Your task to perform on an android device: open a bookmark in the chrome app Image 0: 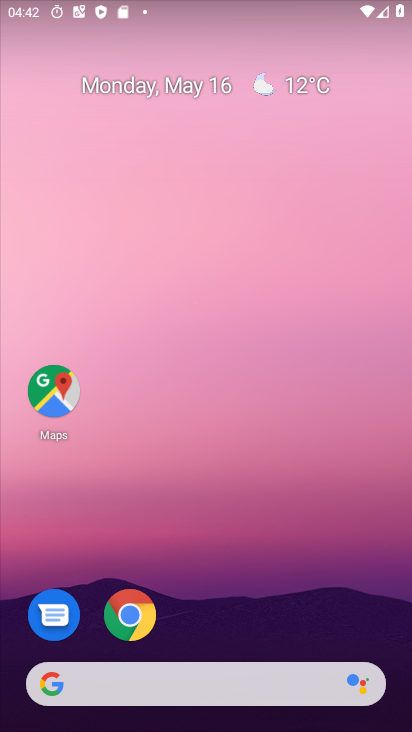
Step 0: drag from (294, 659) to (141, 54)
Your task to perform on an android device: open a bookmark in the chrome app Image 1: 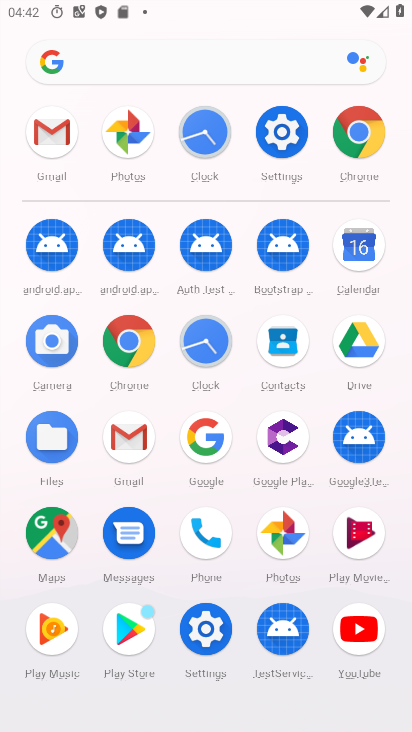
Step 1: click (358, 137)
Your task to perform on an android device: open a bookmark in the chrome app Image 2: 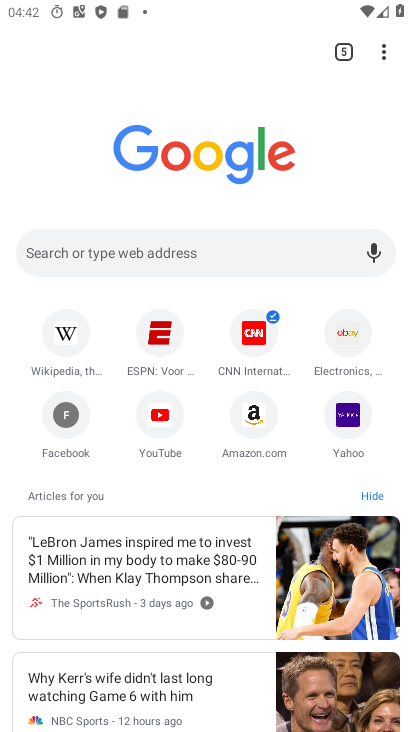
Step 2: click (87, 251)
Your task to perform on an android device: open a bookmark in the chrome app Image 3: 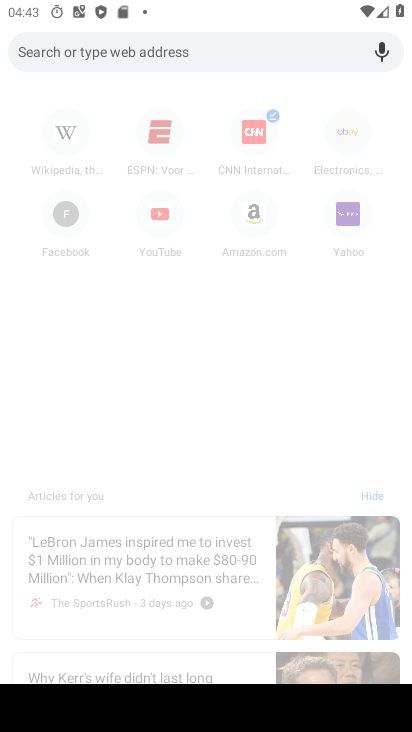
Step 3: type "www.snapdeal.com"
Your task to perform on an android device: open a bookmark in the chrome app Image 4: 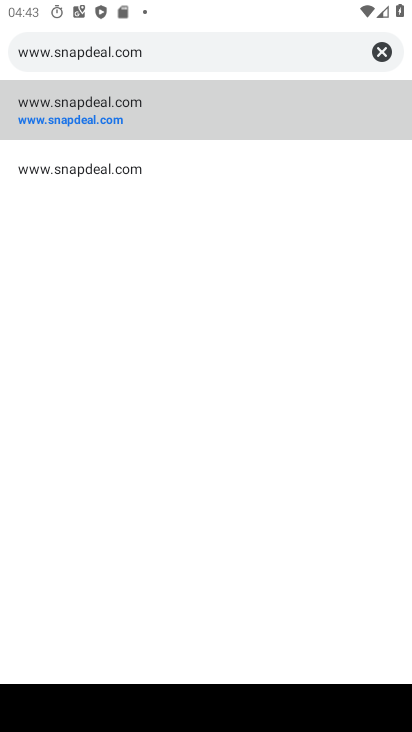
Step 4: click (98, 108)
Your task to perform on an android device: open a bookmark in the chrome app Image 5: 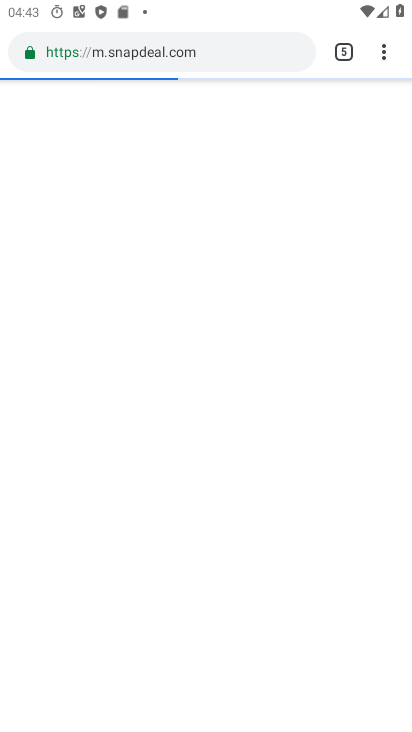
Step 5: drag from (384, 51) to (188, 253)
Your task to perform on an android device: open a bookmark in the chrome app Image 6: 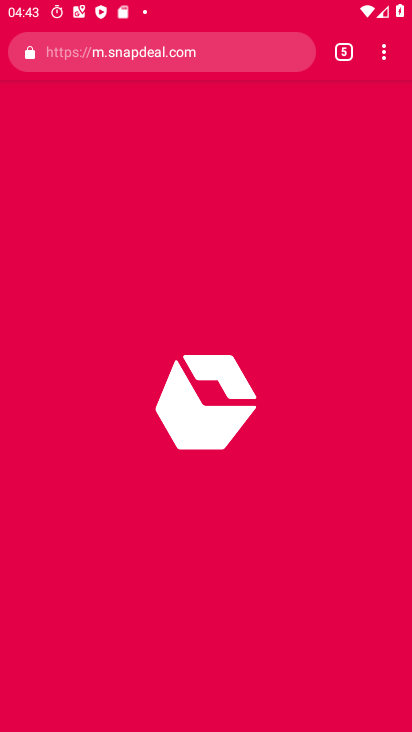
Step 6: click (186, 251)
Your task to perform on an android device: open a bookmark in the chrome app Image 7: 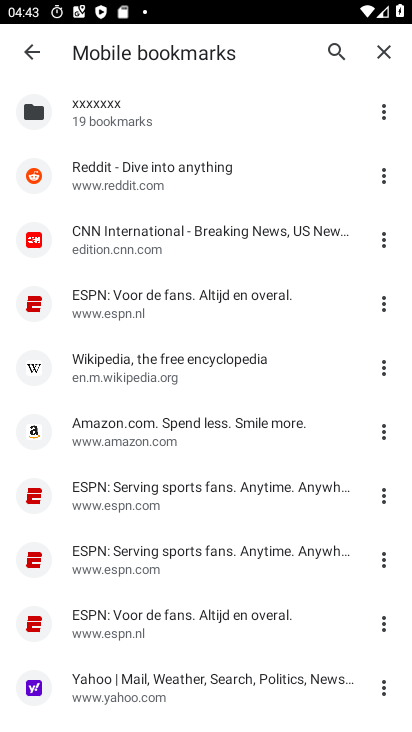
Step 7: task complete